Your task to perform on an android device: Search for vegetarian restaurants on Maps Image 0: 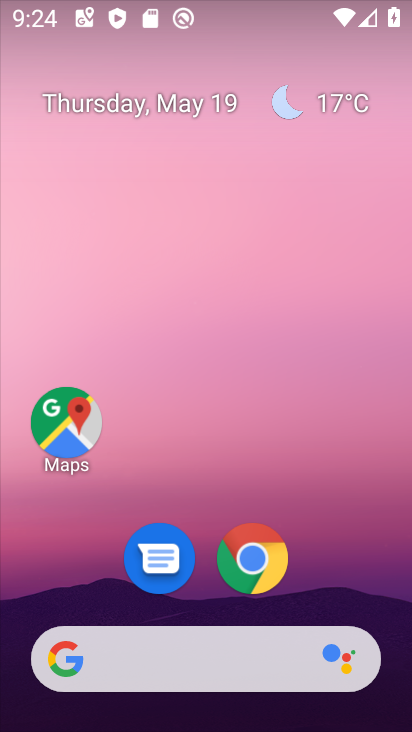
Step 0: drag from (185, 723) to (187, 173)
Your task to perform on an android device: Search for vegetarian restaurants on Maps Image 1: 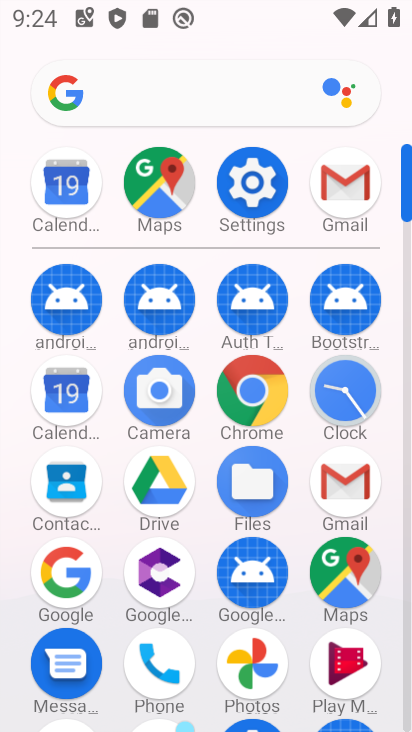
Step 1: click (349, 568)
Your task to perform on an android device: Search for vegetarian restaurants on Maps Image 2: 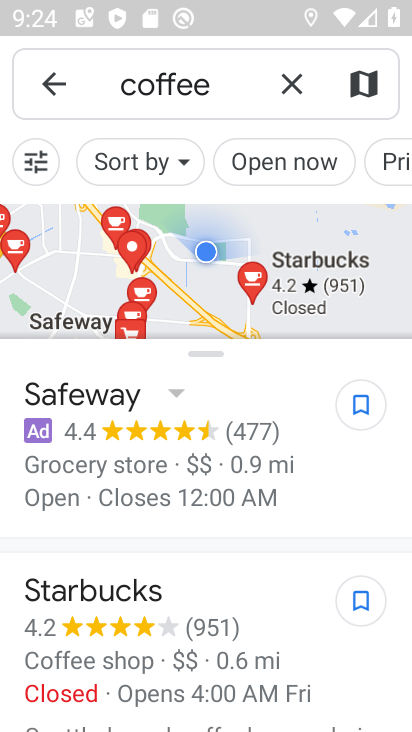
Step 2: click (292, 83)
Your task to perform on an android device: Search for vegetarian restaurants on Maps Image 3: 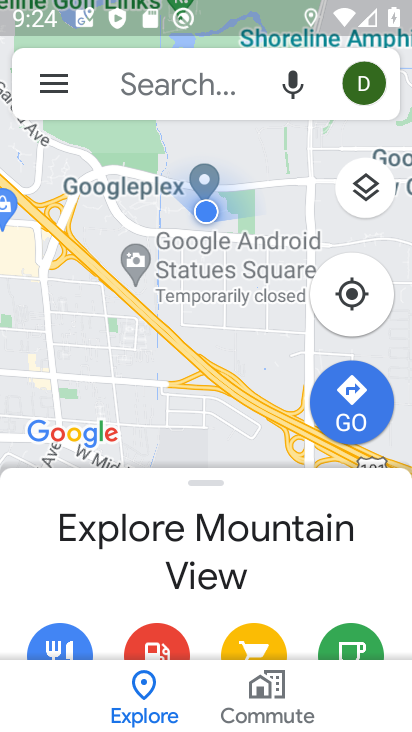
Step 3: click (125, 83)
Your task to perform on an android device: Search for vegetarian restaurants on Maps Image 4: 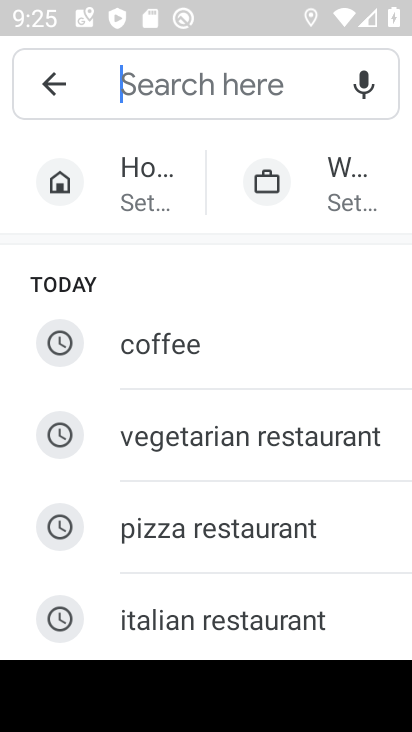
Step 4: type "vegetarian restaurants"
Your task to perform on an android device: Search for vegetarian restaurants on Maps Image 5: 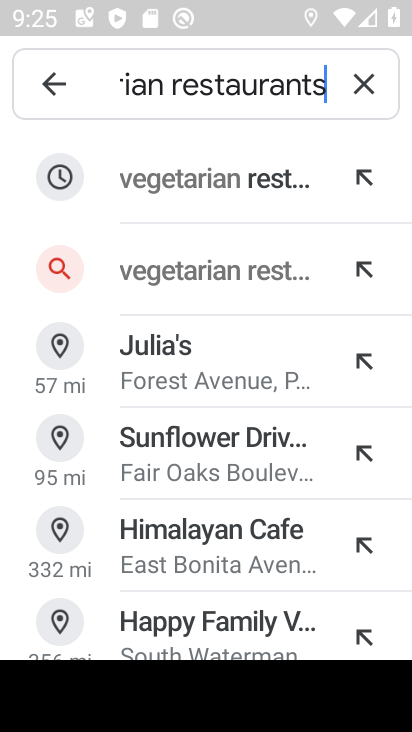
Step 5: click (248, 185)
Your task to perform on an android device: Search for vegetarian restaurants on Maps Image 6: 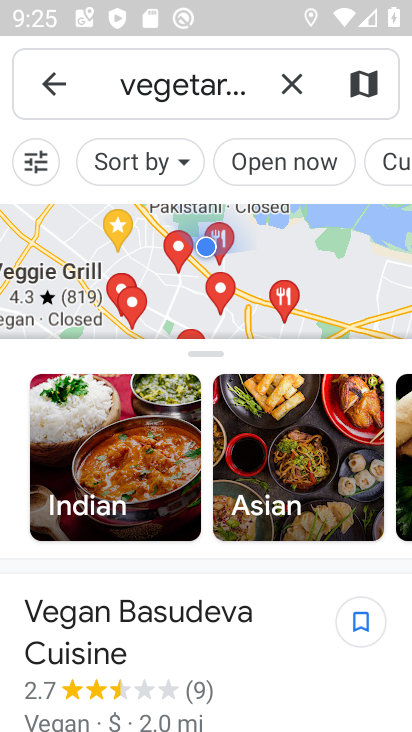
Step 6: task complete